Your task to perform on an android device: set the stopwatch Image 0: 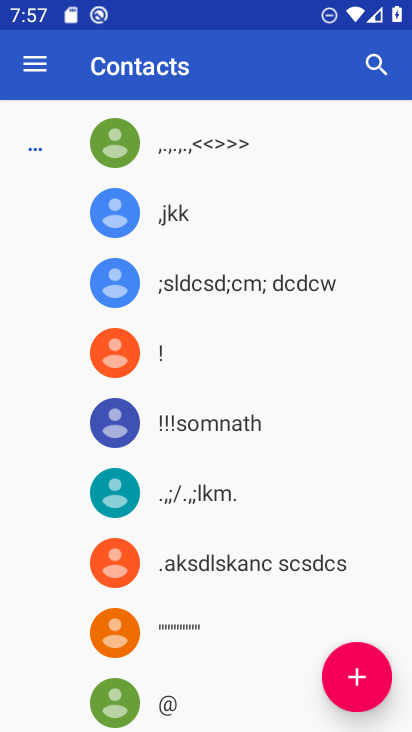
Step 0: press home button
Your task to perform on an android device: set the stopwatch Image 1: 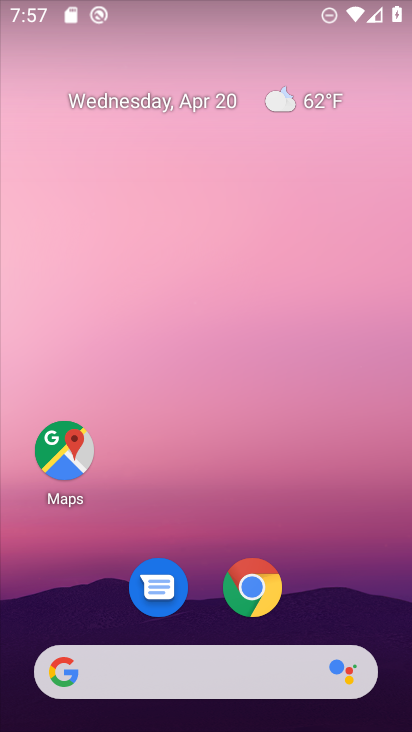
Step 1: drag from (335, 618) to (323, 129)
Your task to perform on an android device: set the stopwatch Image 2: 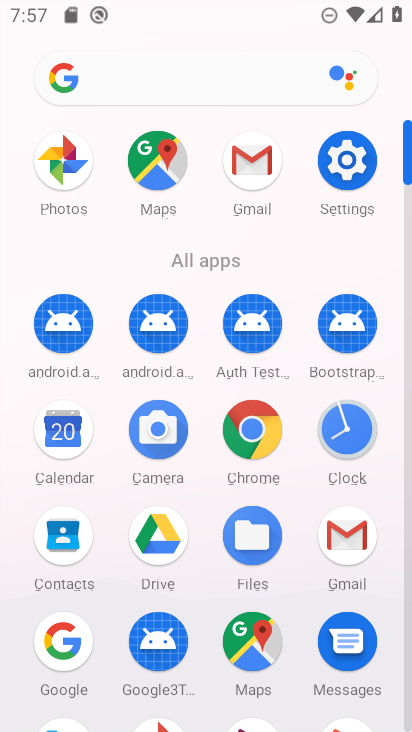
Step 2: drag from (300, 264) to (291, 202)
Your task to perform on an android device: set the stopwatch Image 3: 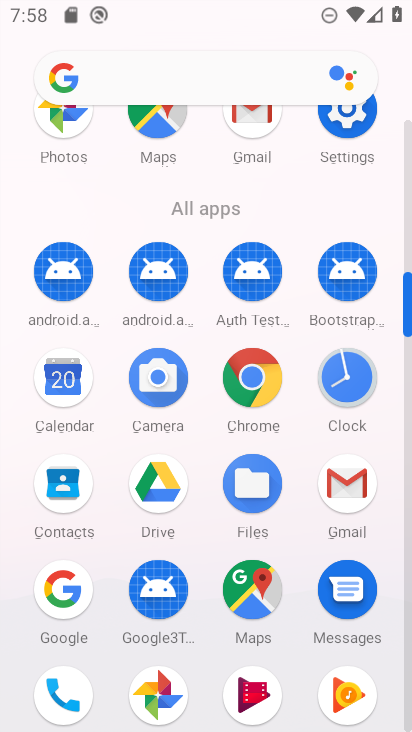
Step 3: click (355, 383)
Your task to perform on an android device: set the stopwatch Image 4: 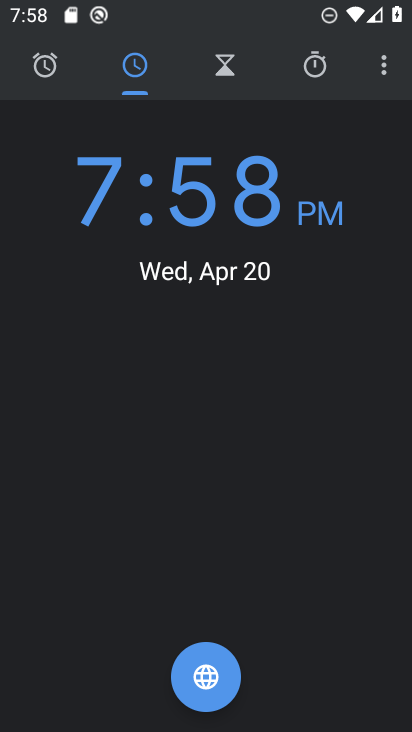
Step 4: click (313, 67)
Your task to perform on an android device: set the stopwatch Image 5: 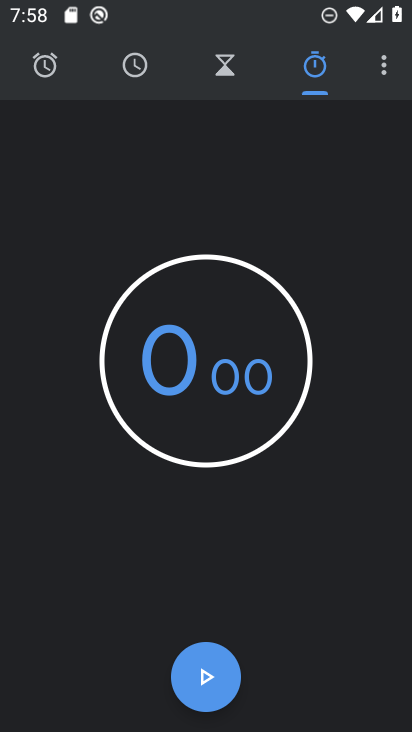
Step 5: task complete